Your task to perform on an android device: Open Chrome and go to the settings page Image 0: 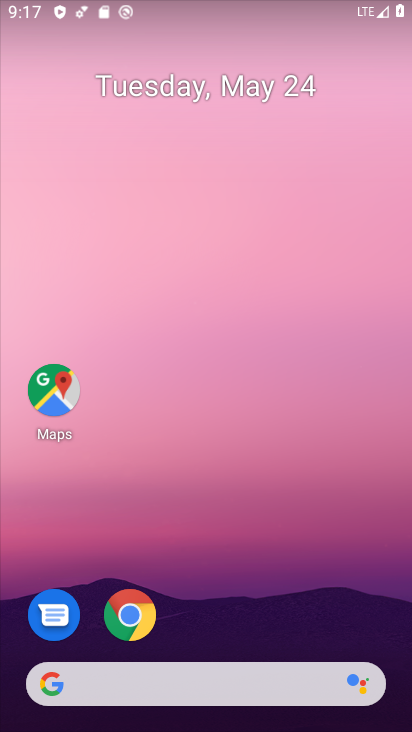
Step 0: click (134, 622)
Your task to perform on an android device: Open Chrome and go to the settings page Image 1: 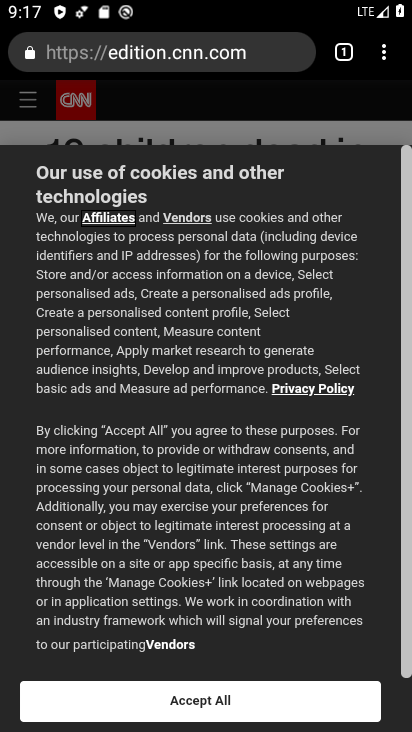
Step 1: click (382, 53)
Your task to perform on an android device: Open Chrome and go to the settings page Image 2: 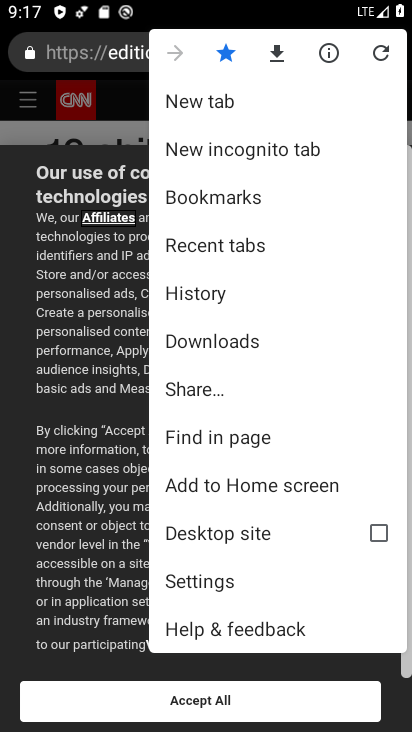
Step 2: click (233, 579)
Your task to perform on an android device: Open Chrome and go to the settings page Image 3: 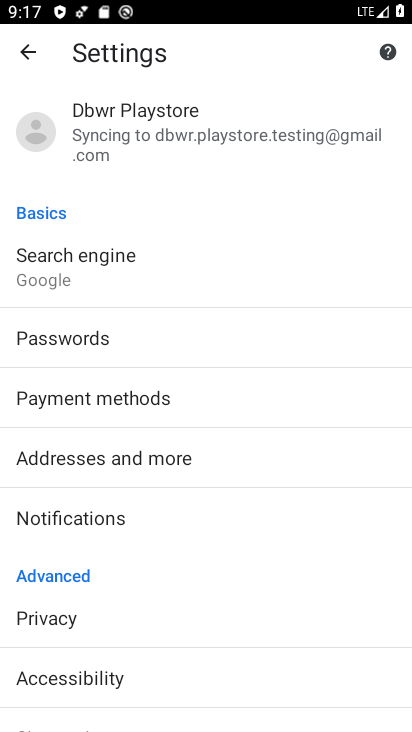
Step 3: task complete